Your task to perform on an android device: Add razer thresher to the cart on amazon.com, then select checkout. Image 0: 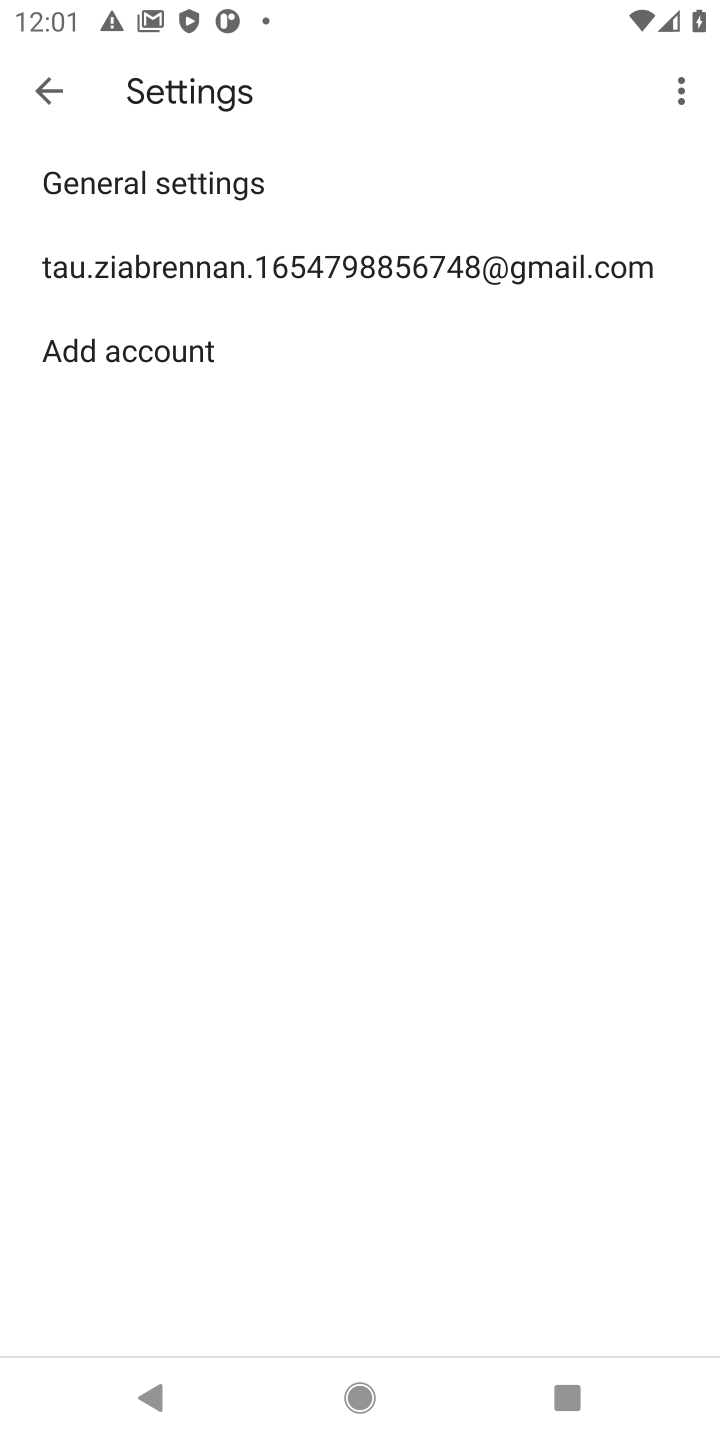
Step 0: press home button
Your task to perform on an android device: Add razer thresher to the cart on amazon.com, then select checkout. Image 1: 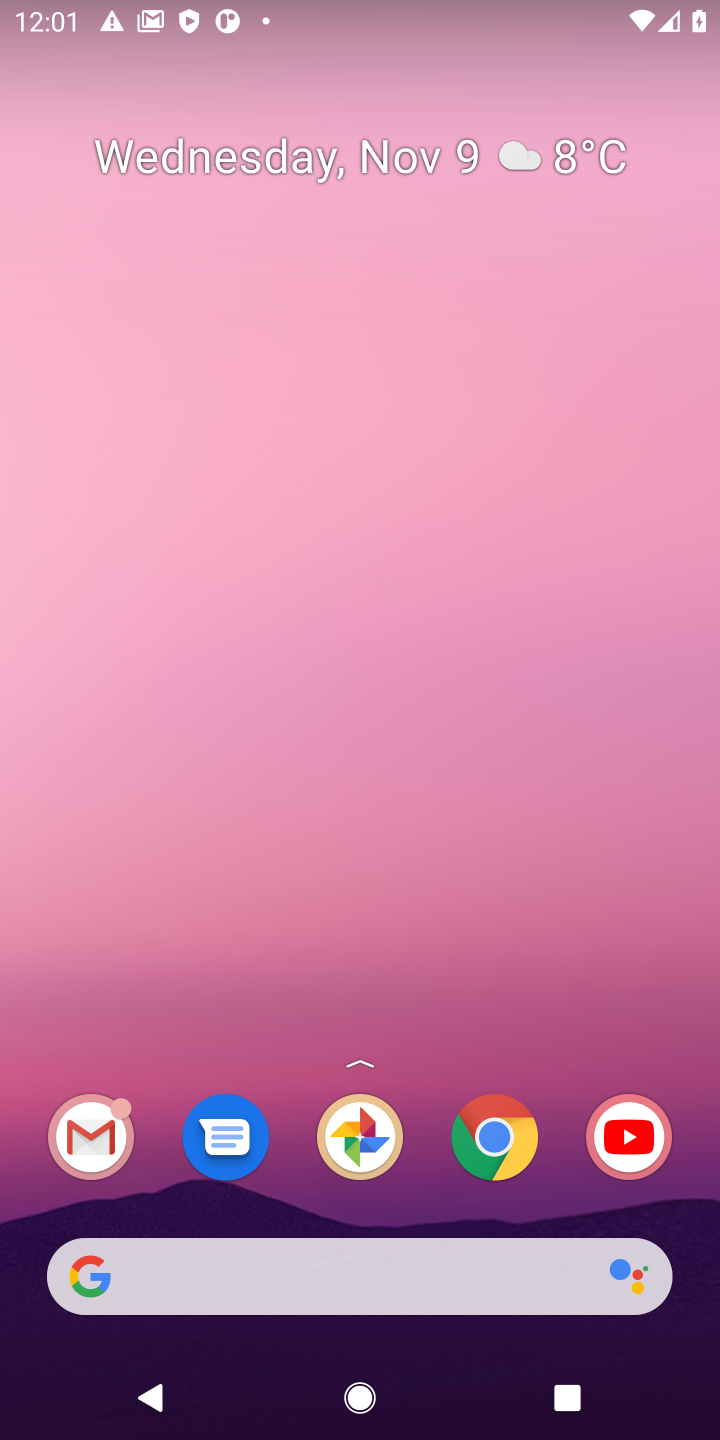
Step 1: click (486, 1123)
Your task to perform on an android device: Add razer thresher to the cart on amazon.com, then select checkout. Image 2: 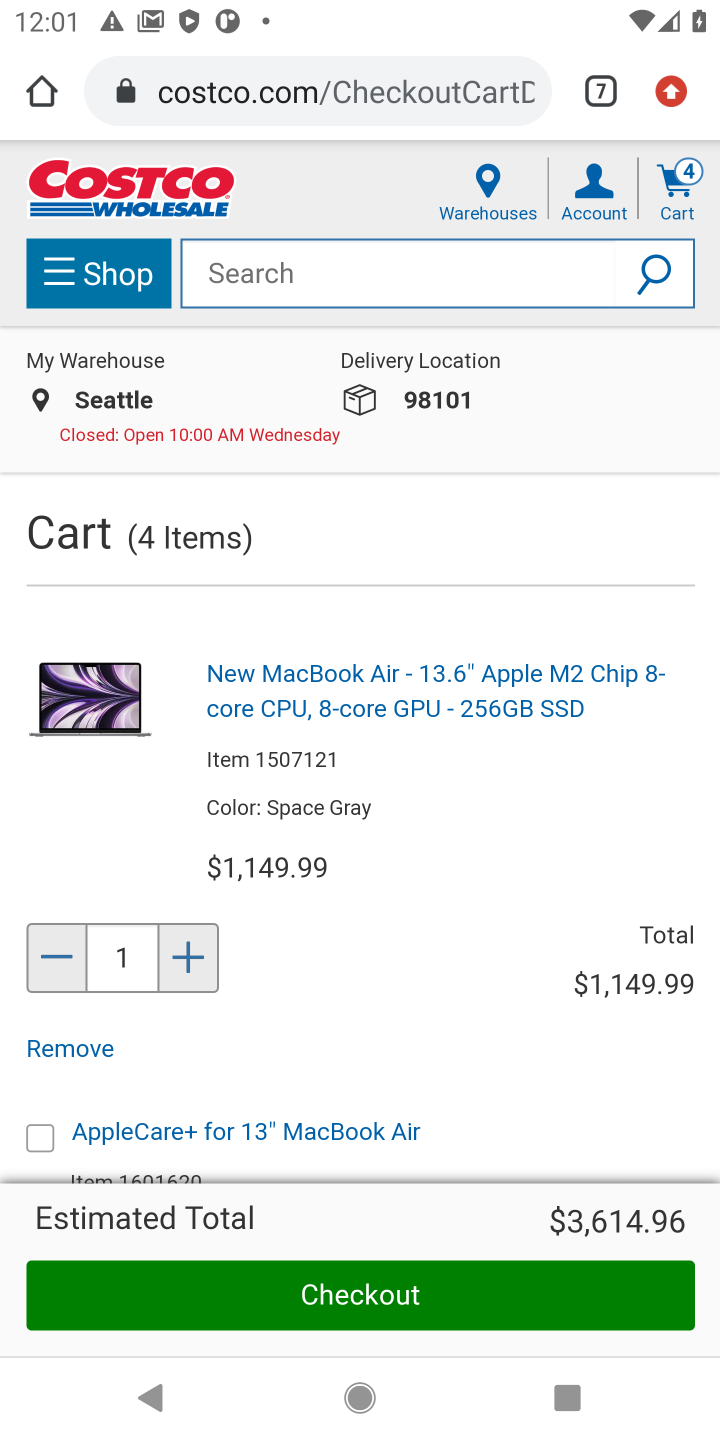
Step 2: click (591, 98)
Your task to perform on an android device: Add razer thresher to the cart on amazon.com, then select checkout. Image 3: 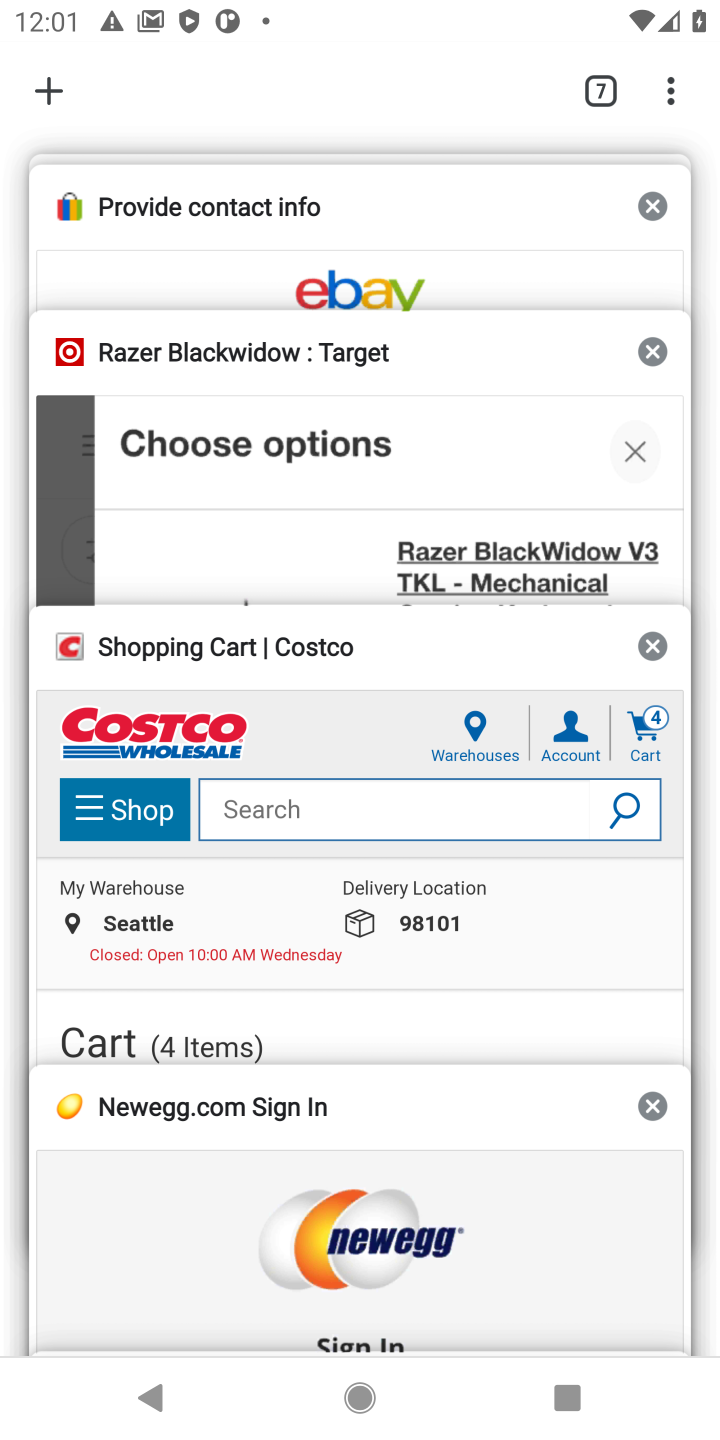
Step 3: drag from (299, 1263) to (399, 834)
Your task to perform on an android device: Add razer thresher to the cart on amazon.com, then select checkout. Image 4: 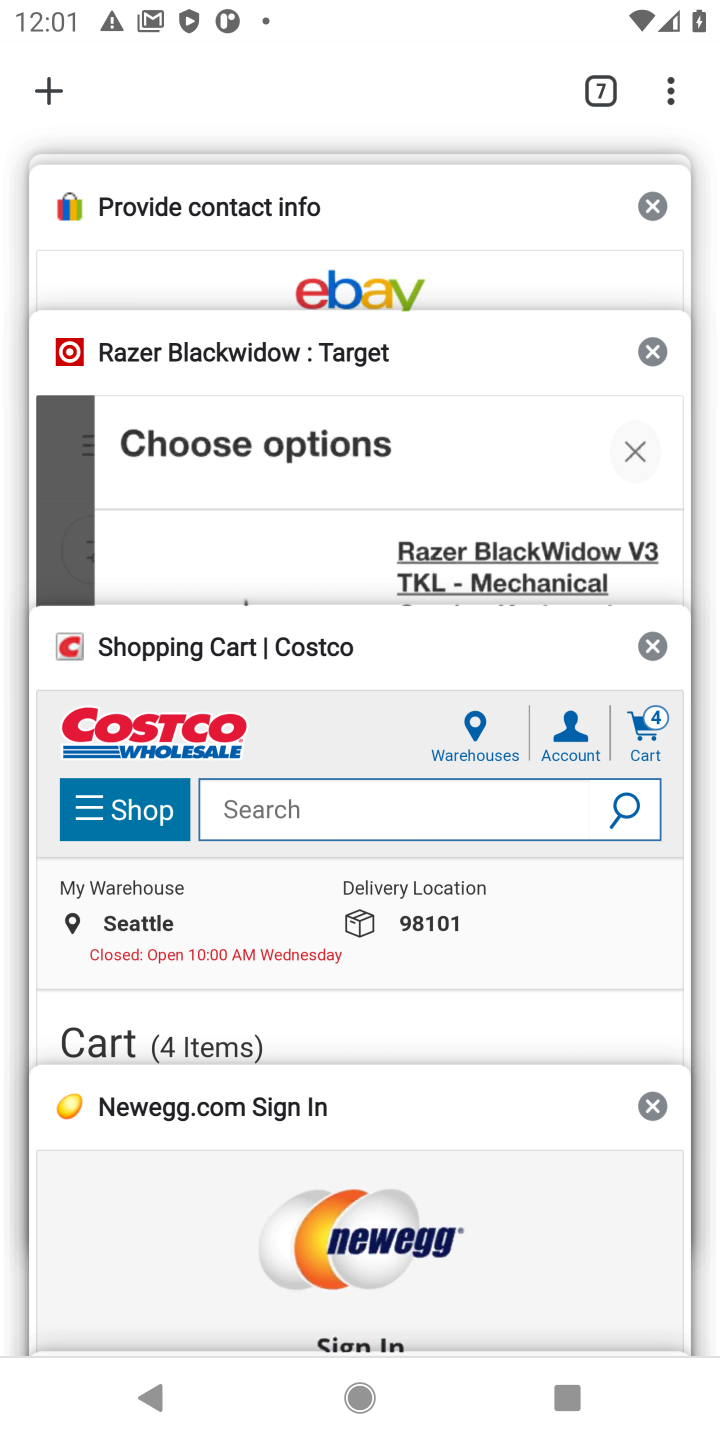
Step 4: drag from (338, 1165) to (507, 406)
Your task to perform on an android device: Add razer thresher to the cart on amazon.com, then select checkout. Image 5: 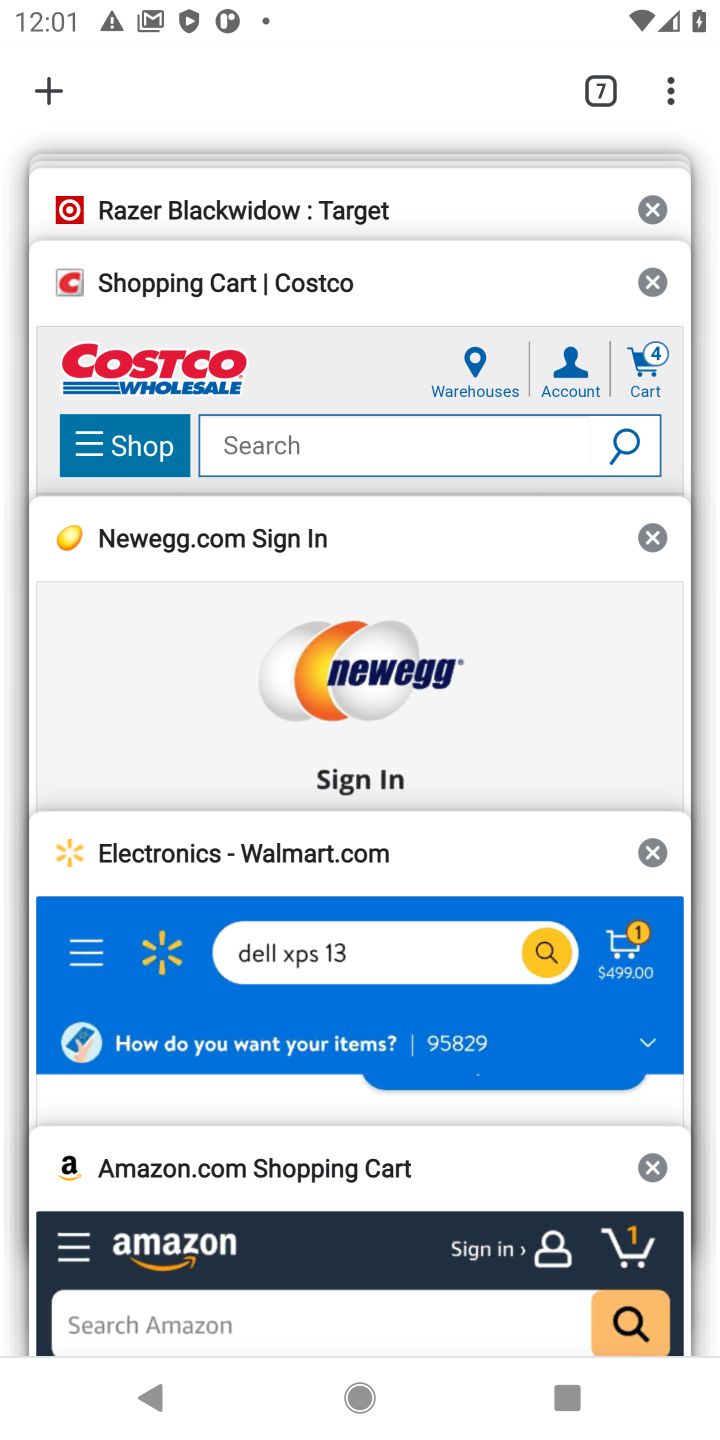
Step 5: click (377, 1260)
Your task to perform on an android device: Add razer thresher to the cart on amazon.com, then select checkout. Image 6: 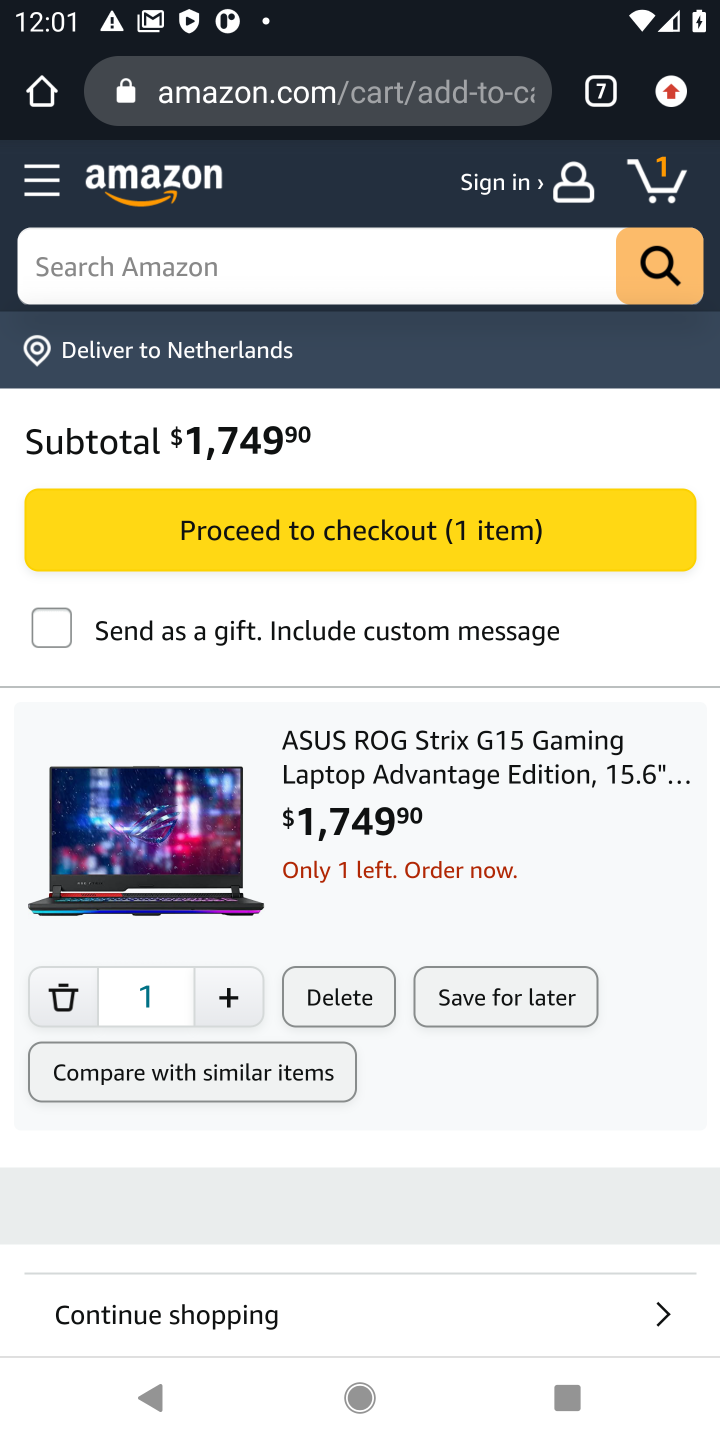
Step 6: click (188, 260)
Your task to perform on an android device: Add razer thresher to the cart on amazon.com, then select checkout. Image 7: 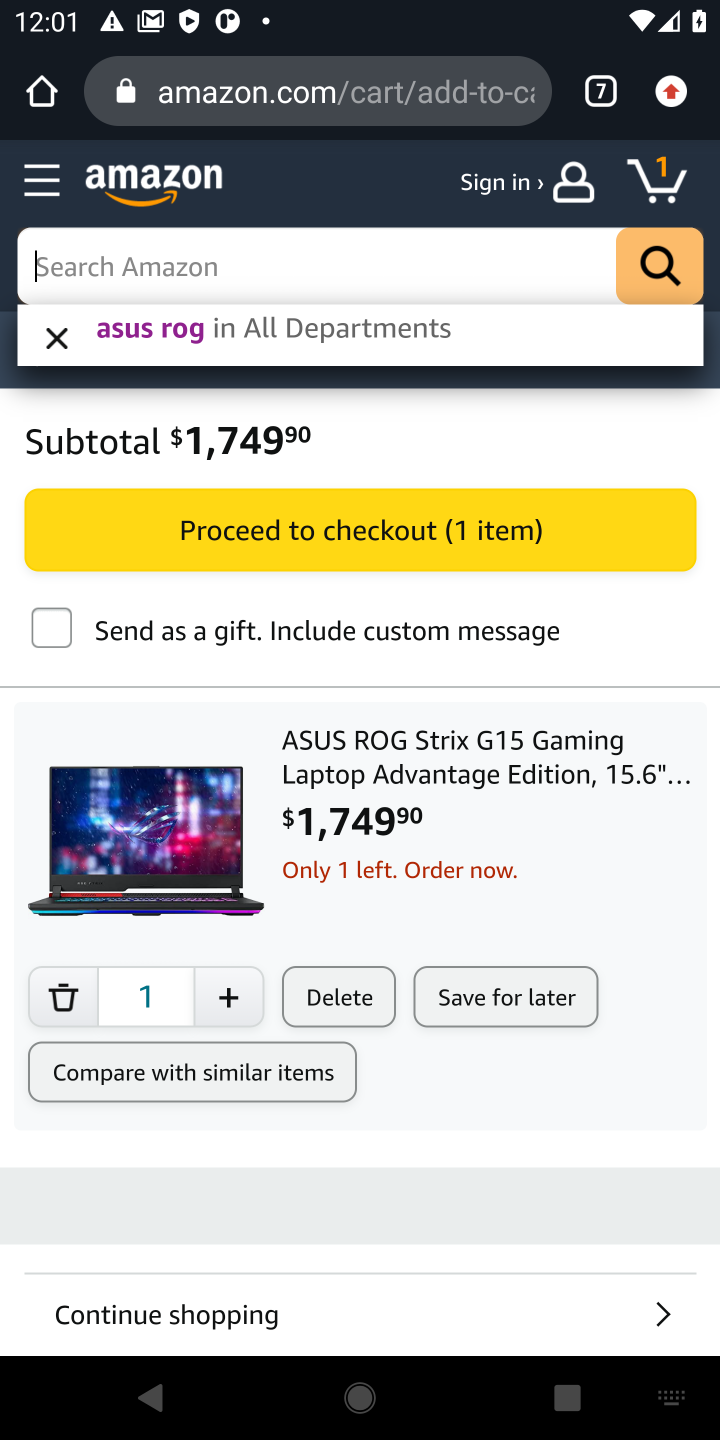
Step 7: type "razer thresher "
Your task to perform on an android device: Add razer thresher to the cart on amazon.com, then select checkout. Image 8: 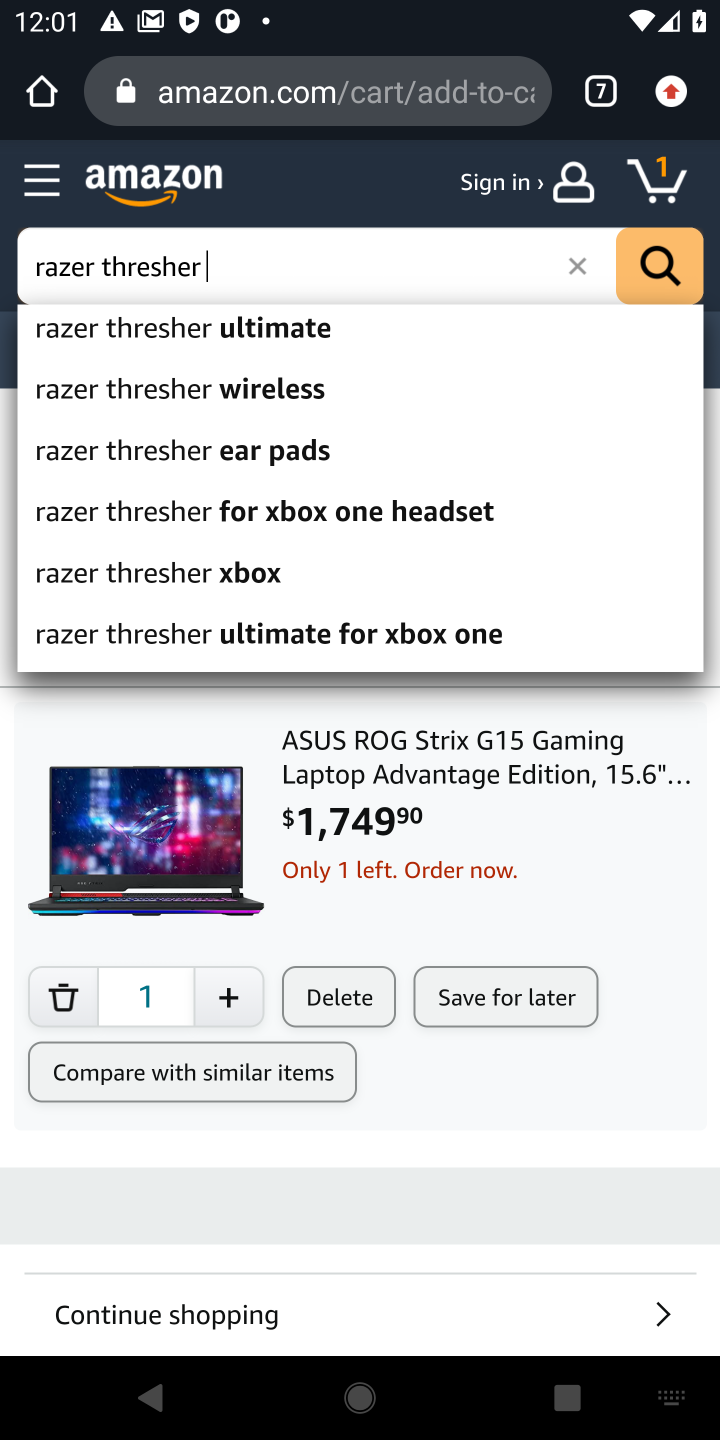
Step 8: click (234, 324)
Your task to perform on an android device: Add razer thresher to the cart on amazon.com, then select checkout. Image 9: 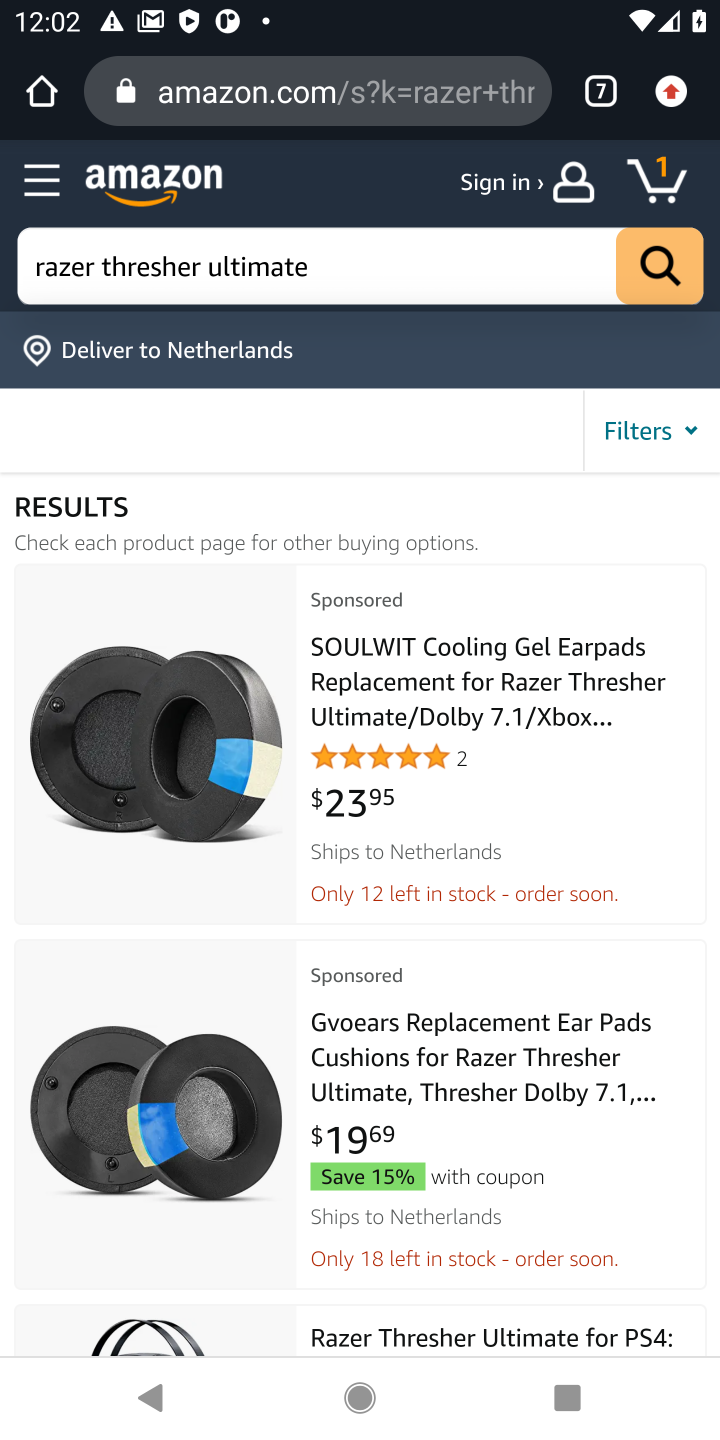
Step 9: click (480, 1334)
Your task to perform on an android device: Add razer thresher to the cart on amazon.com, then select checkout. Image 10: 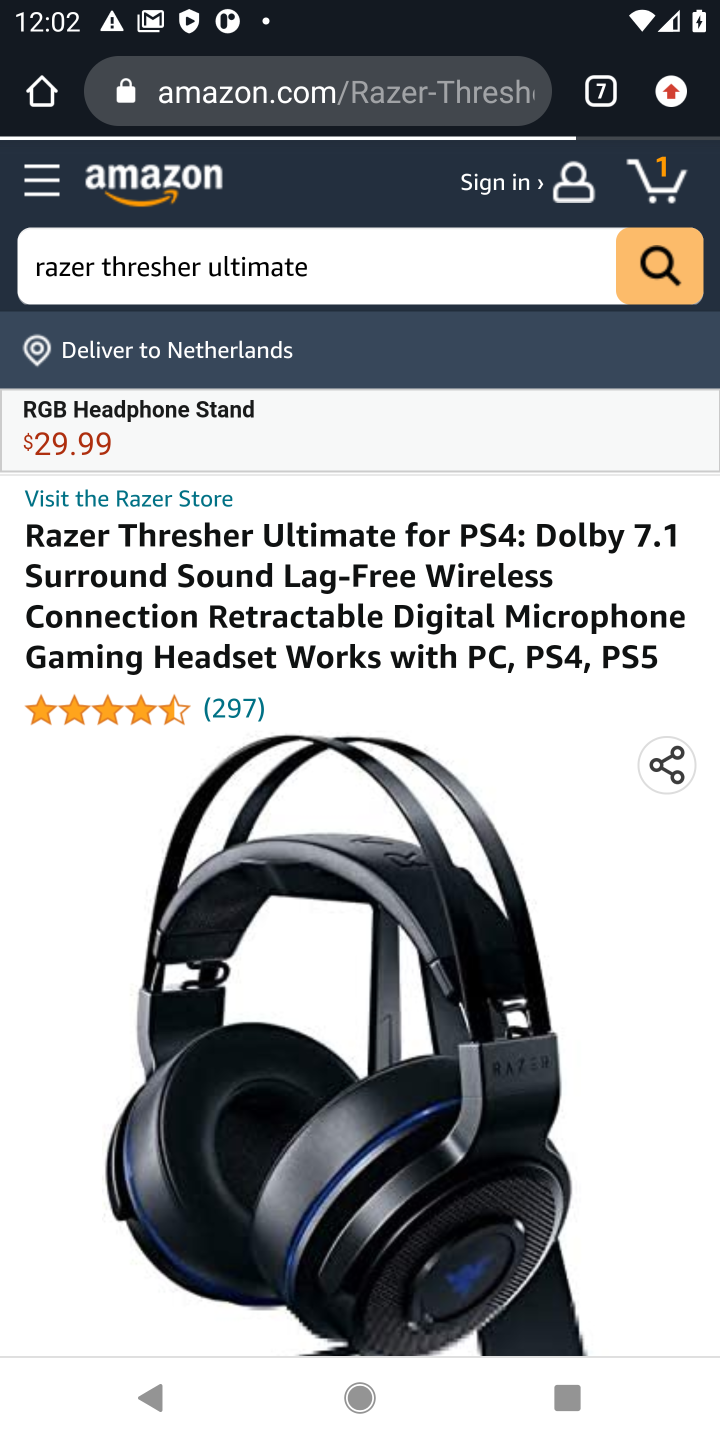
Step 10: drag from (614, 850) to (692, 506)
Your task to perform on an android device: Add razer thresher to the cart on amazon.com, then select checkout. Image 11: 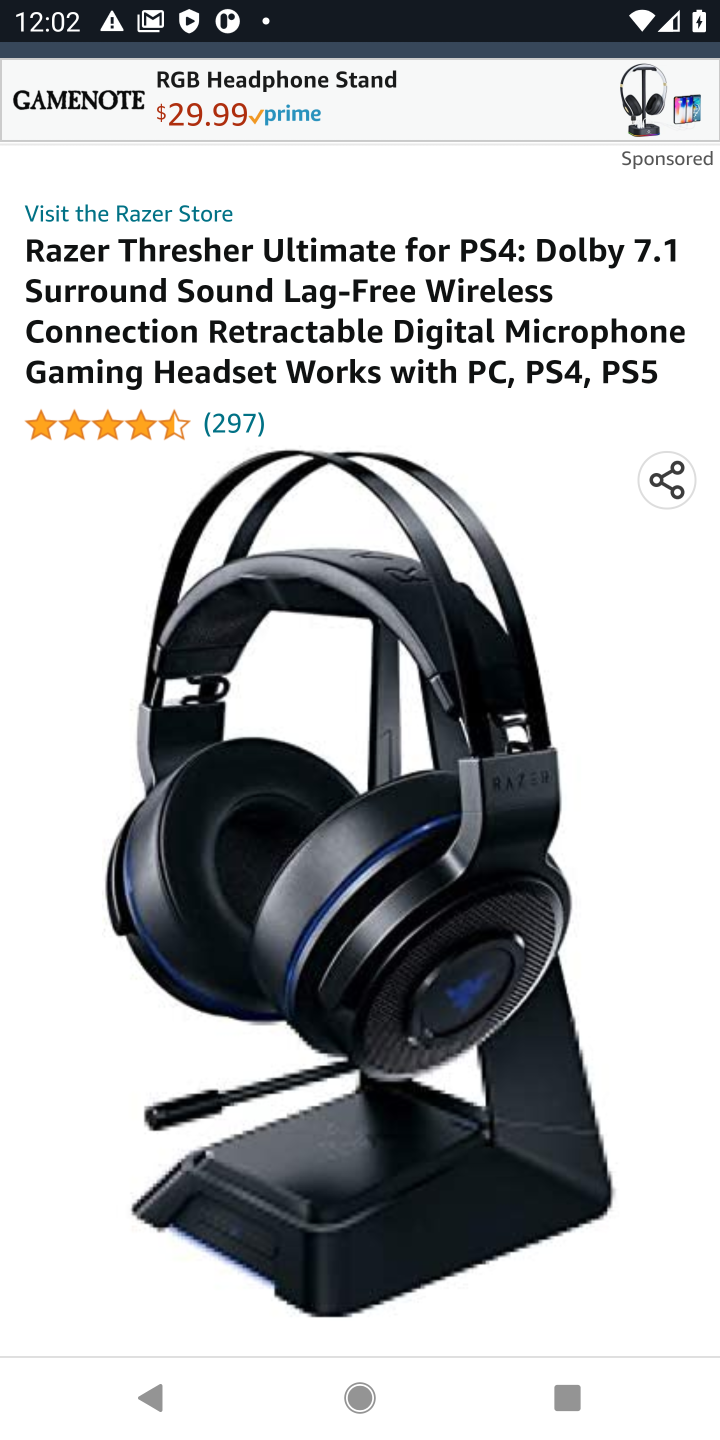
Step 11: drag from (494, 1216) to (636, 197)
Your task to perform on an android device: Add razer thresher to the cart on amazon.com, then select checkout. Image 12: 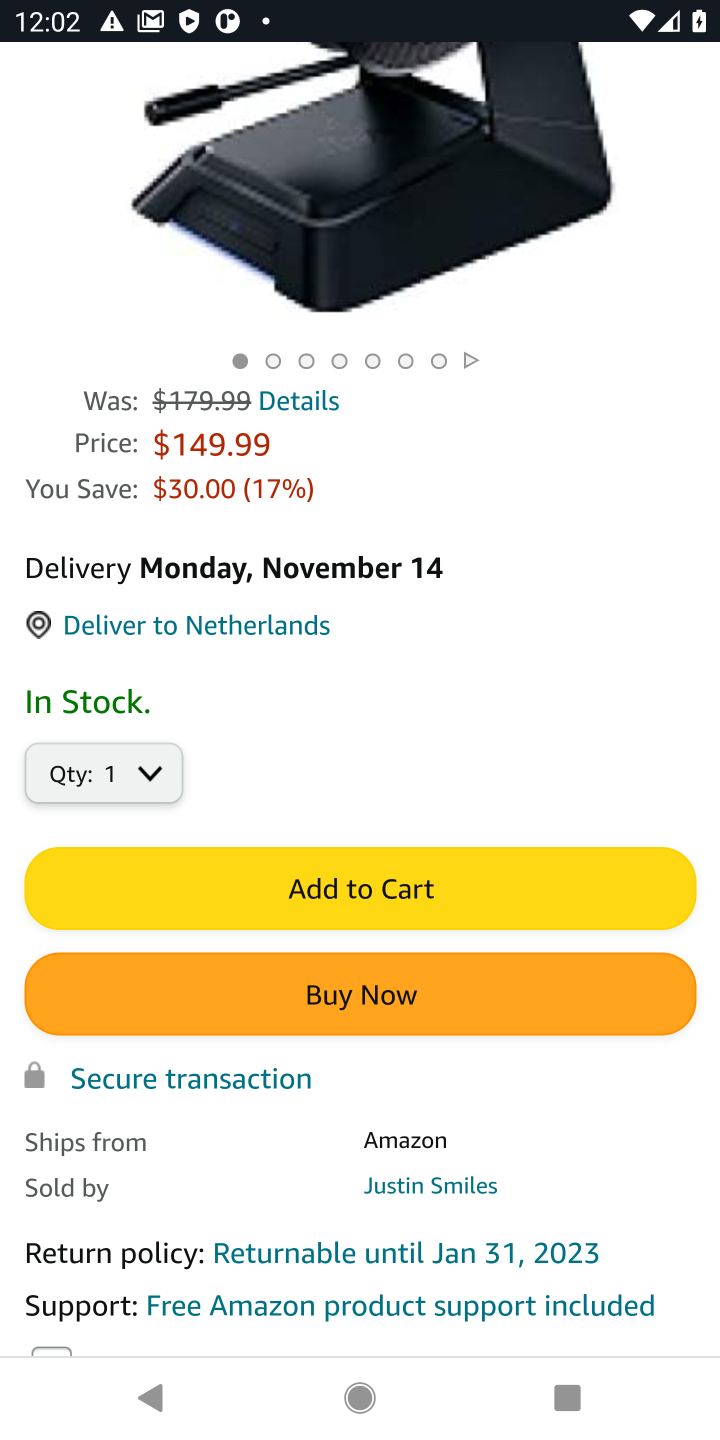
Step 12: click (403, 896)
Your task to perform on an android device: Add razer thresher to the cart on amazon.com, then select checkout. Image 13: 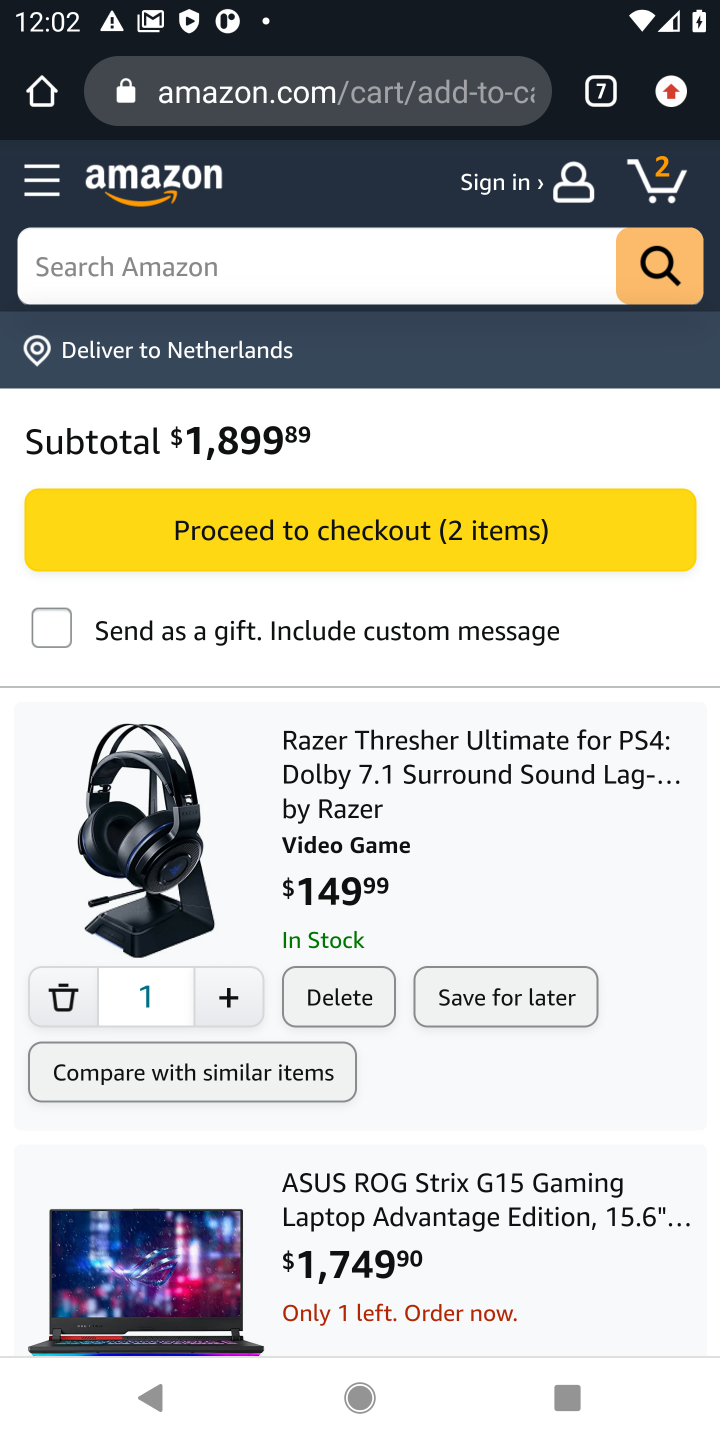
Step 13: click (395, 522)
Your task to perform on an android device: Add razer thresher to the cart on amazon.com, then select checkout. Image 14: 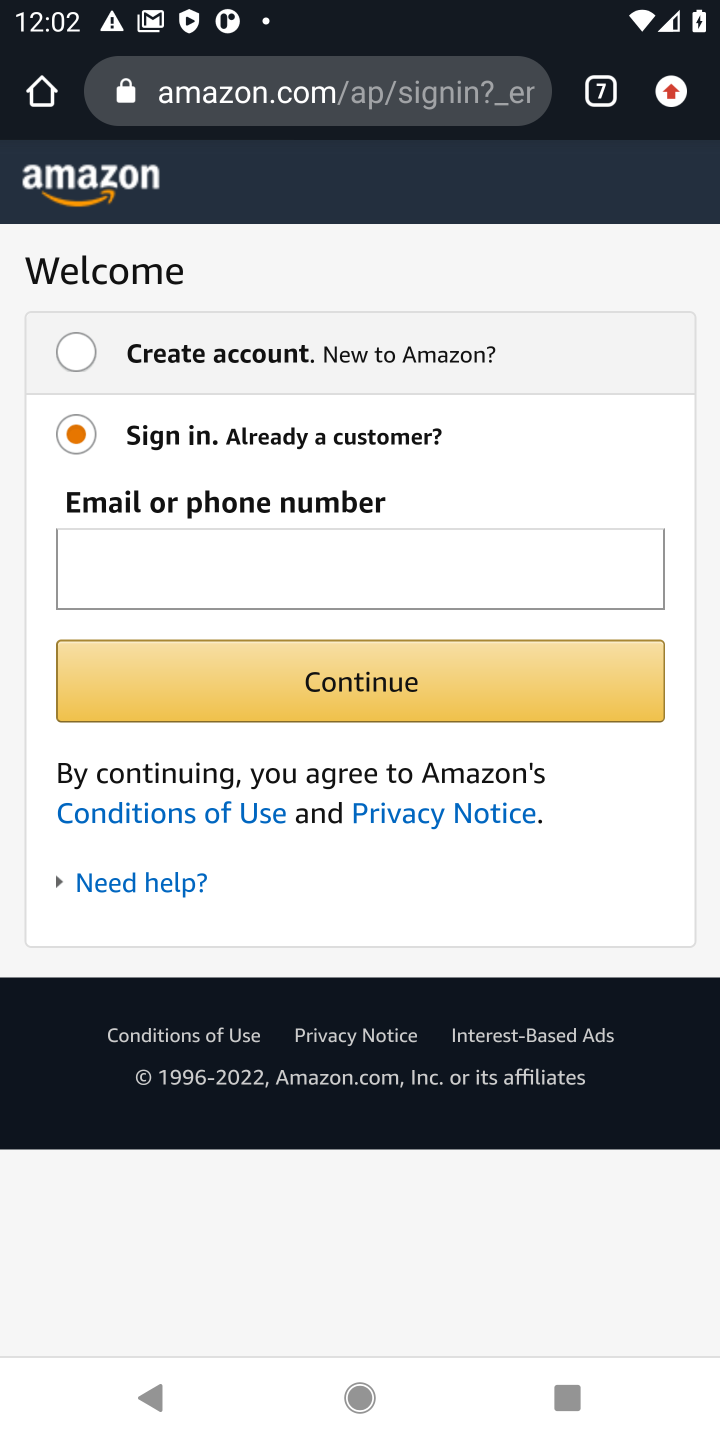
Step 14: task complete